Your task to perform on an android device: turn notification dots on Image 0: 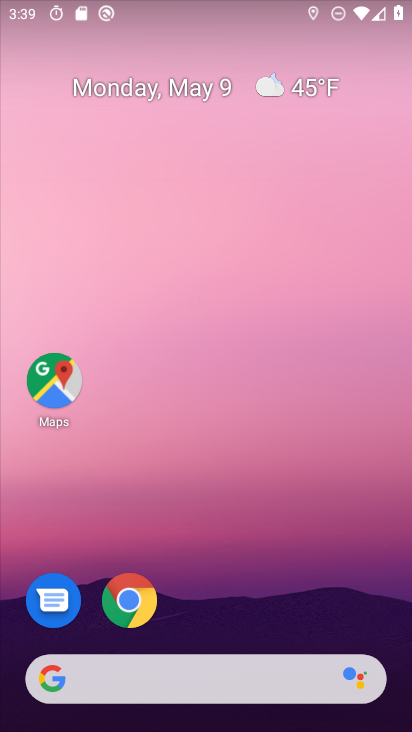
Step 0: drag from (225, 617) to (260, 183)
Your task to perform on an android device: turn notification dots on Image 1: 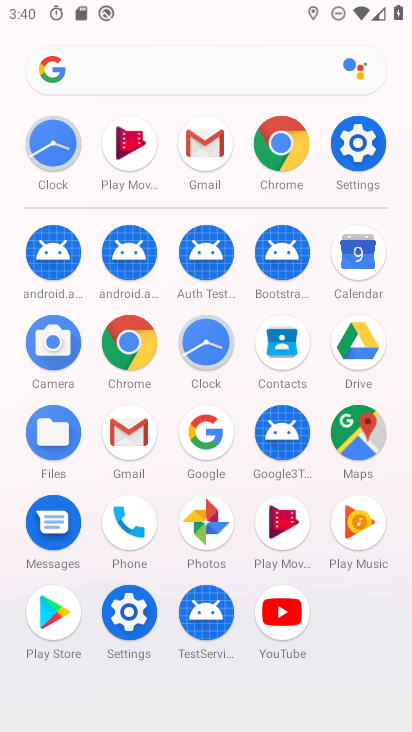
Step 1: click (136, 625)
Your task to perform on an android device: turn notification dots on Image 2: 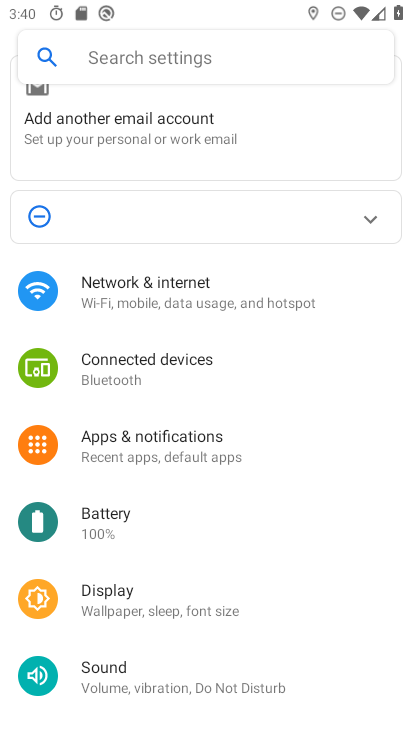
Step 2: click (168, 461)
Your task to perform on an android device: turn notification dots on Image 3: 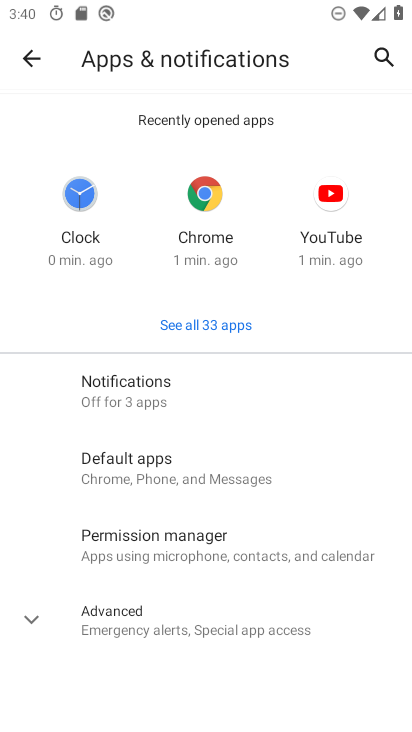
Step 3: click (148, 407)
Your task to perform on an android device: turn notification dots on Image 4: 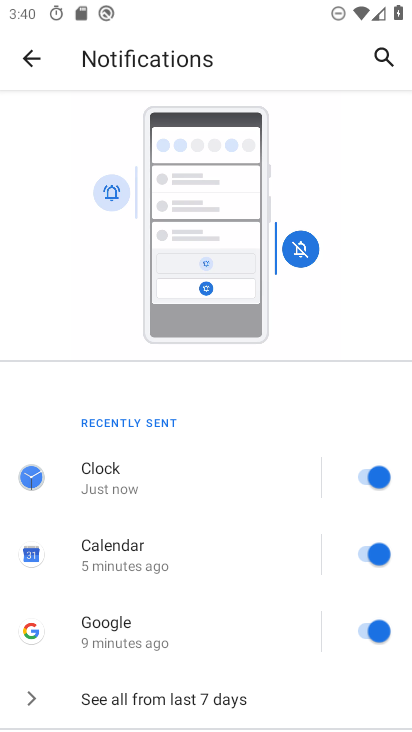
Step 4: drag from (169, 595) to (243, 250)
Your task to perform on an android device: turn notification dots on Image 5: 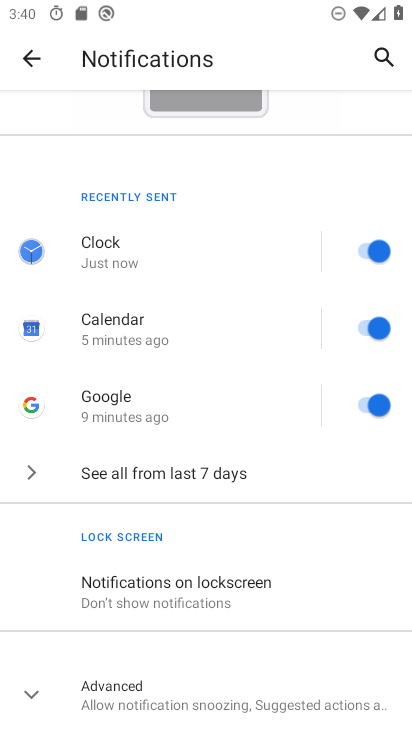
Step 5: drag from (202, 607) to (244, 342)
Your task to perform on an android device: turn notification dots on Image 6: 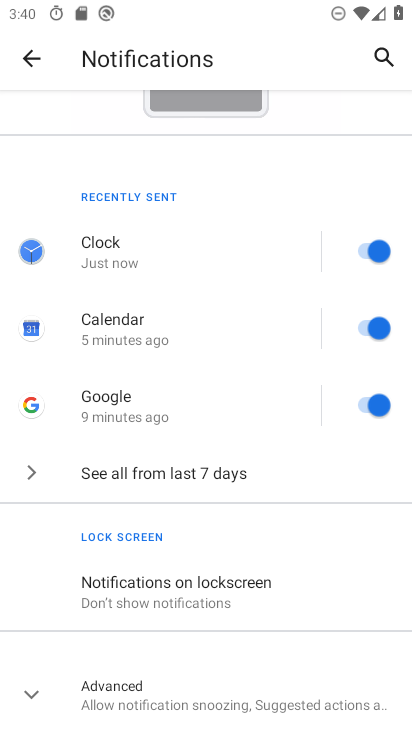
Step 6: click (113, 689)
Your task to perform on an android device: turn notification dots on Image 7: 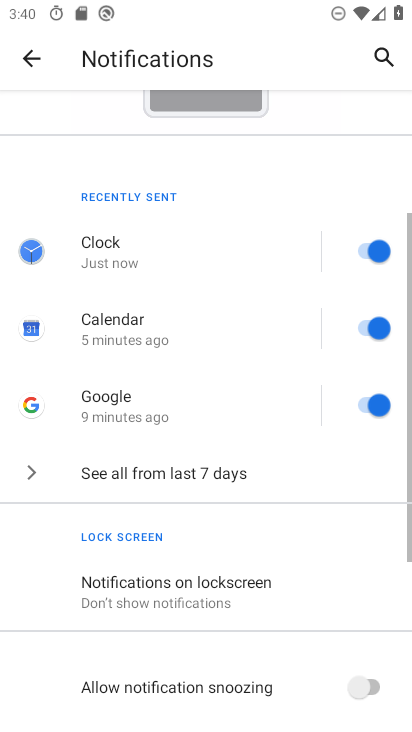
Step 7: task complete